Your task to perform on an android device: Open Google Chrome Image 0: 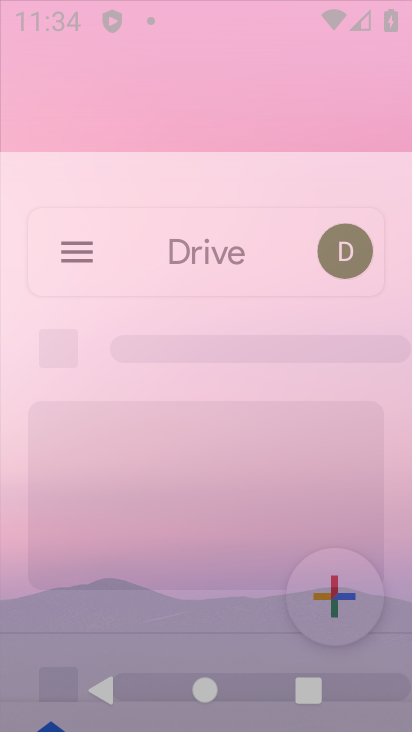
Step 0: press back button
Your task to perform on an android device: Open Google Chrome Image 1: 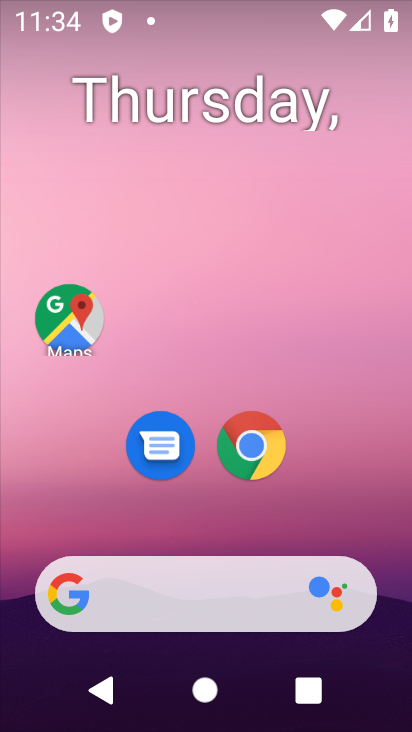
Step 1: press home button
Your task to perform on an android device: Open Google Chrome Image 2: 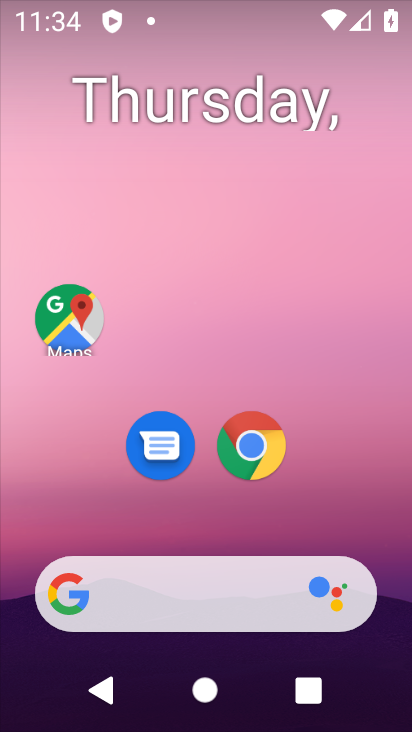
Step 2: drag from (266, 604) to (130, 0)
Your task to perform on an android device: Open Google Chrome Image 3: 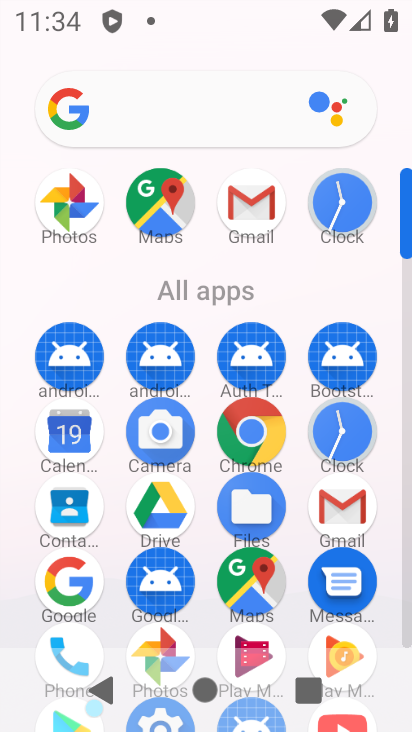
Step 3: click (245, 425)
Your task to perform on an android device: Open Google Chrome Image 4: 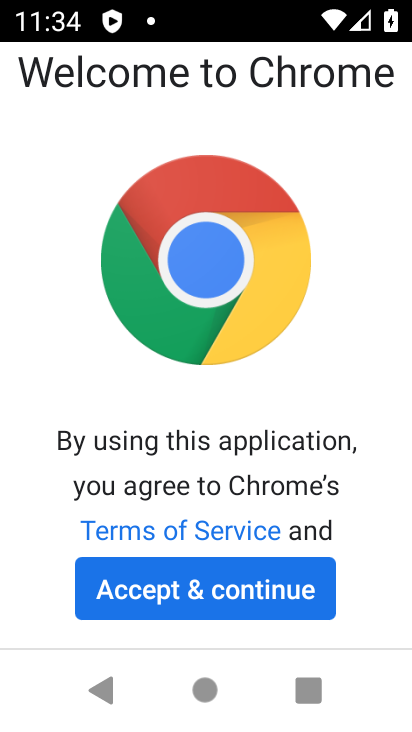
Step 4: click (230, 599)
Your task to perform on an android device: Open Google Chrome Image 5: 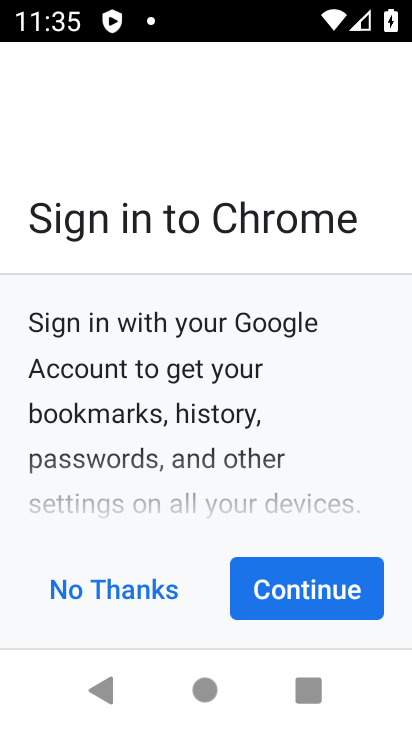
Step 5: click (337, 586)
Your task to perform on an android device: Open Google Chrome Image 6: 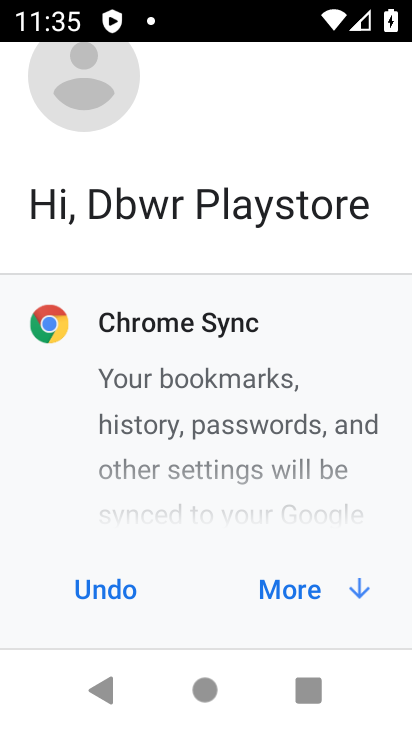
Step 6: click (293, 592)
Your task to perform on an android device: Open Google Chrome Image 7: 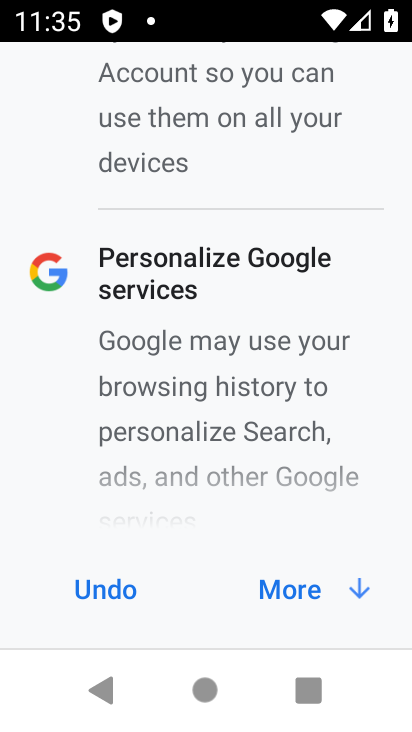
Step 7: click (308, 588)
Your task to perform on an android device: Open Google Chrome Image 8: 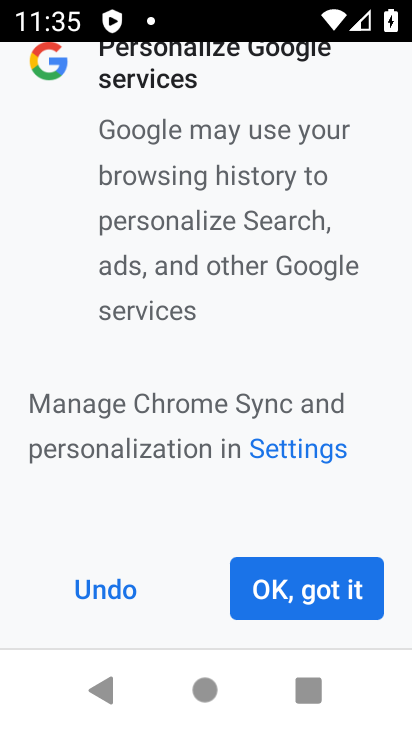
Step 8: click (304, 574)
Your task to perform on an android device: Open Google Chrome Image 9: 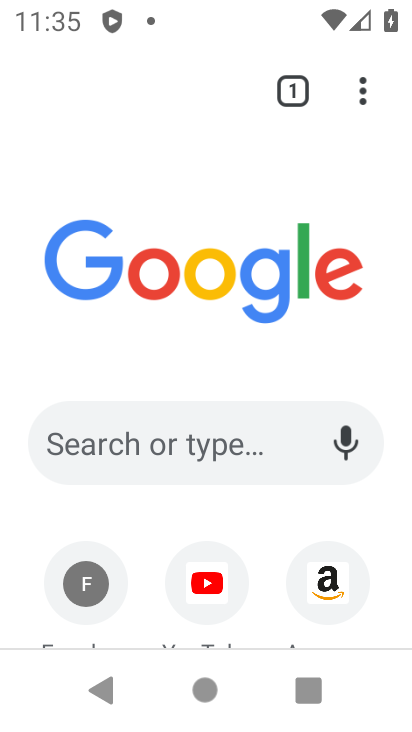
Step 9: task complete